Your task to perform on an android device: Open the calendar app, open the side menu, and click the "Day" option Image 0: 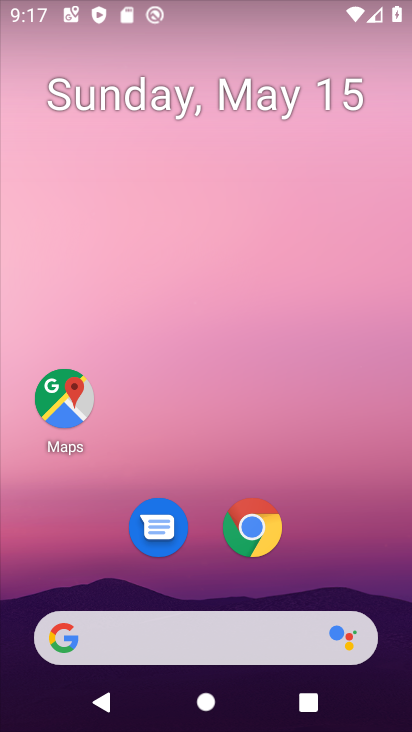
Step 0: drag from (358, 577) to (354, 252)
Your task to perform on an android device: Open the calendar app, open the side menu, and click the "Day" option Image 1: 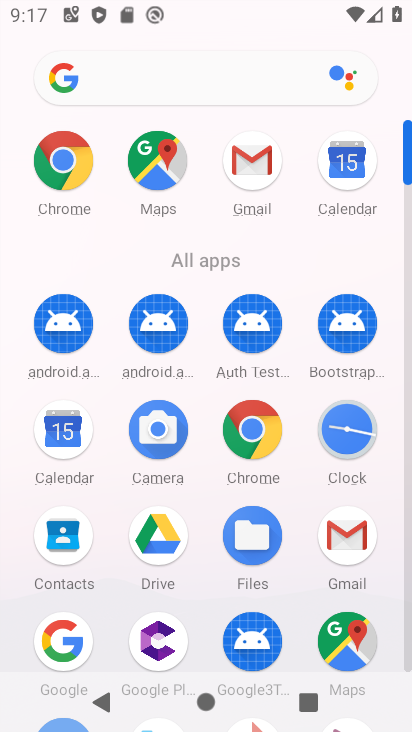
Step 1: click (364, 172)
Your task to perform on an android device: Open the calendar app, open the side menu, and click the "Day" option Image 2: 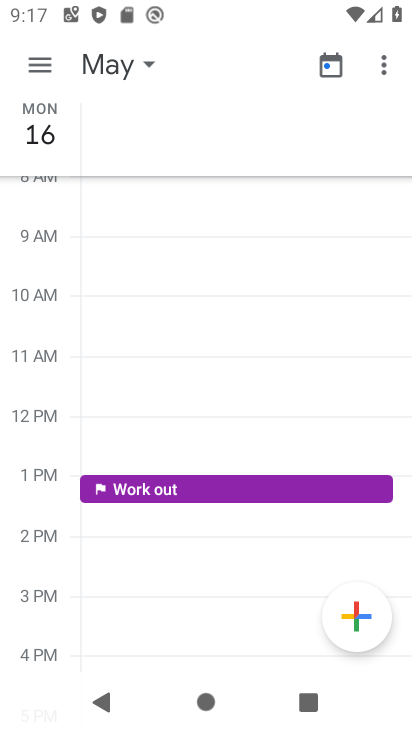
Step 2: click (39, 77)
Your task to perform on an android device: Open the calendar app, open the side menu, and click the "Day" option Image 3: 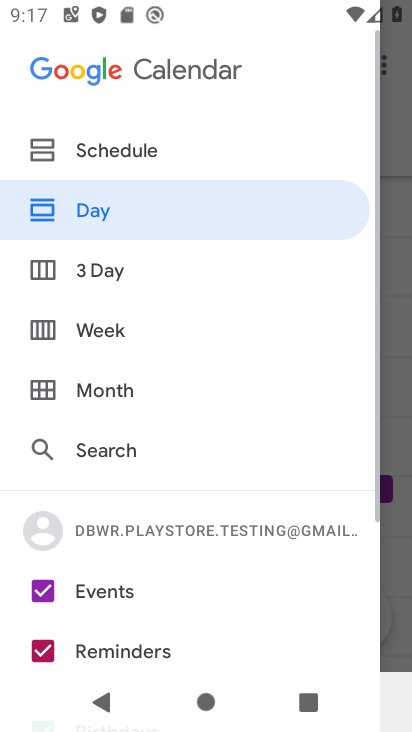
Step 3: click (100, 209)
Your task to perform on an android device: Open the calendar app, open the side menu, and click the "Day" option Image 4: 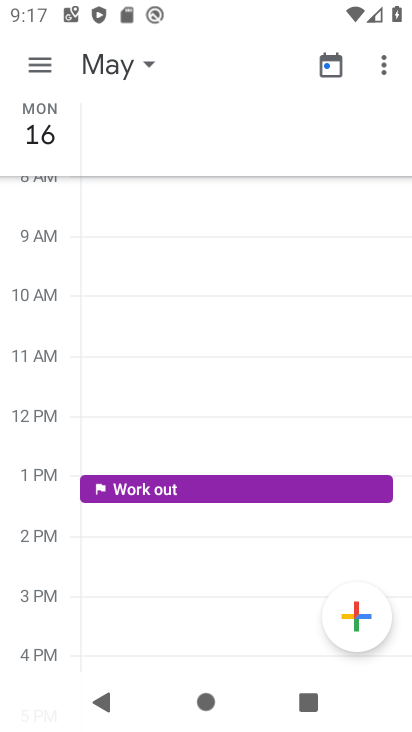
Step 4: task complete